Your task to perform on an android device: Go to calendar. Show me events next week Image 0: 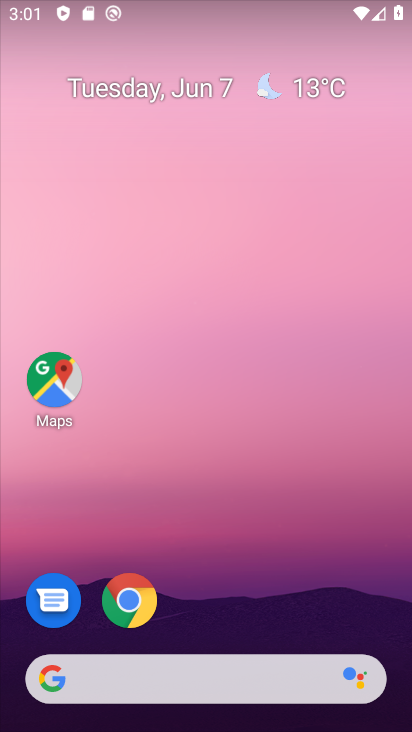
Step 0: drag from (258, 523) to (203, 166)
Your task to perform on an android device: Go to calendar. Show me events next week Image 1: 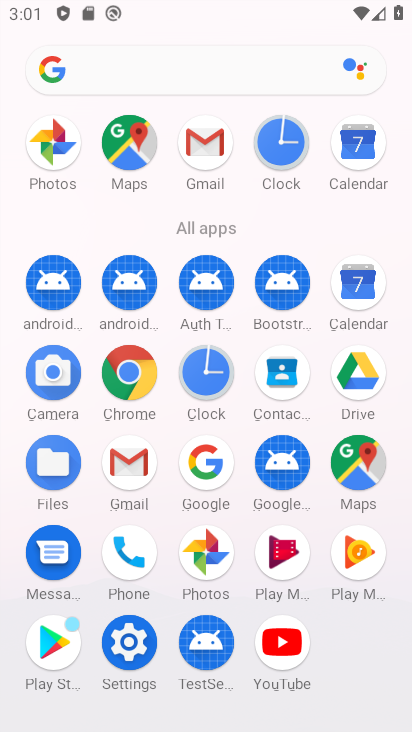
Step 1: click (349, 281)
Your task to perform on an android device: Go to calendar. Show me events next week Image 2: 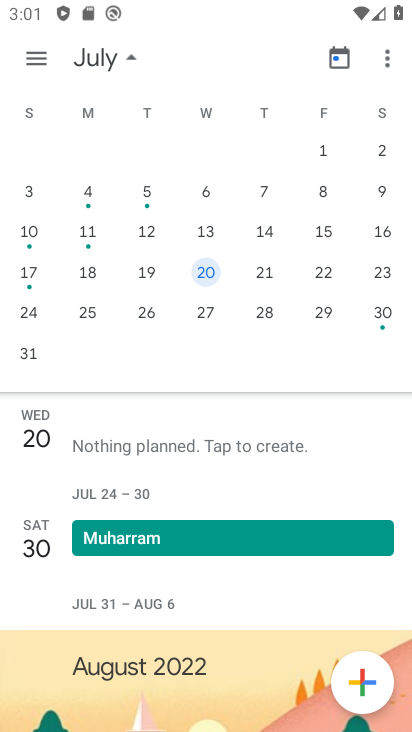
Step 2: drag from (31, 365) to (411, 245)
Your task to perform on an android device: Go to calendar. Show me events next week Image 3: 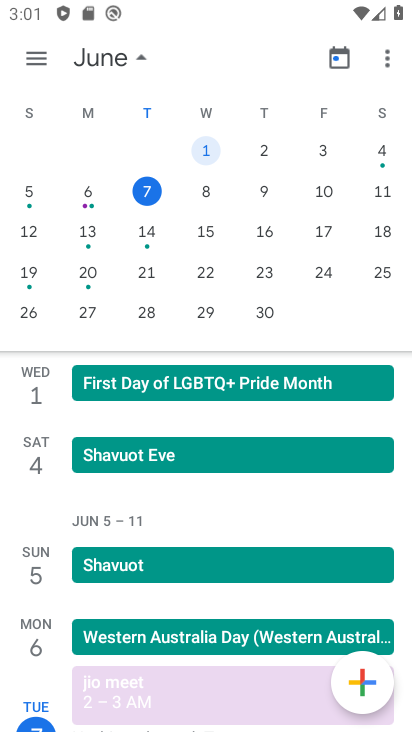
Step 3: click (320, 194)
Your task to perform on an android device: Go to calendar. Show me events next week Image 4: 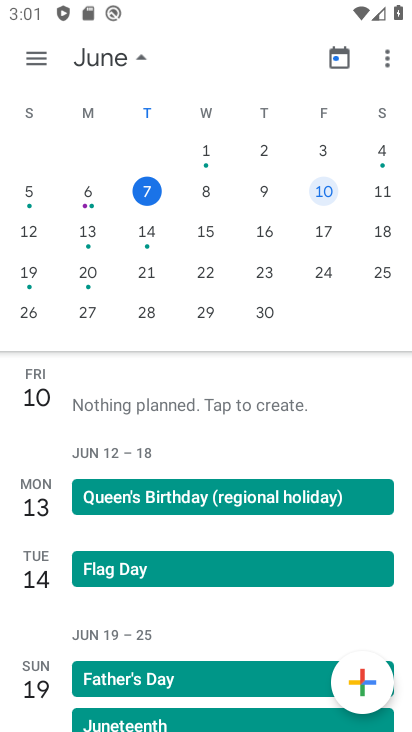
Step 4: task complete